Your task to perform on an android device: turn on notifications settings in the gmail app Image 0: 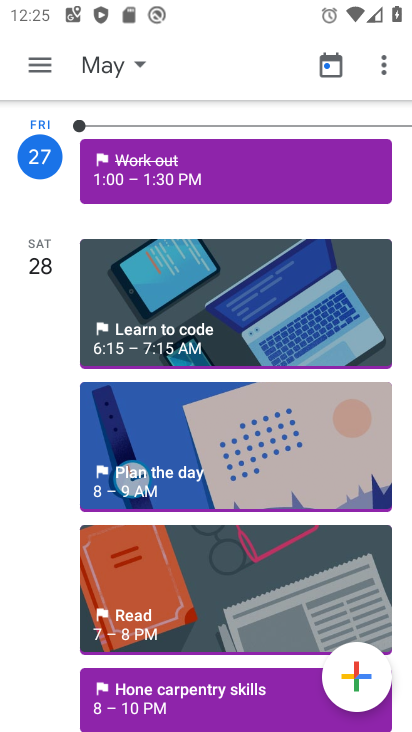
Step 0: press home button
Your task to perform on an android device: turn on notifications settings in the gmail app Image 1: 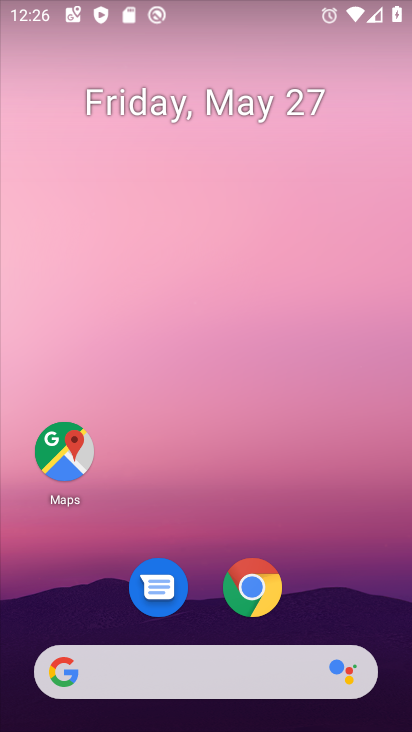
Step 1: drag from (240, 693) to (209, 180)
Your task to perform on an android device: turn on notifications settings in the gmail app Image 2: 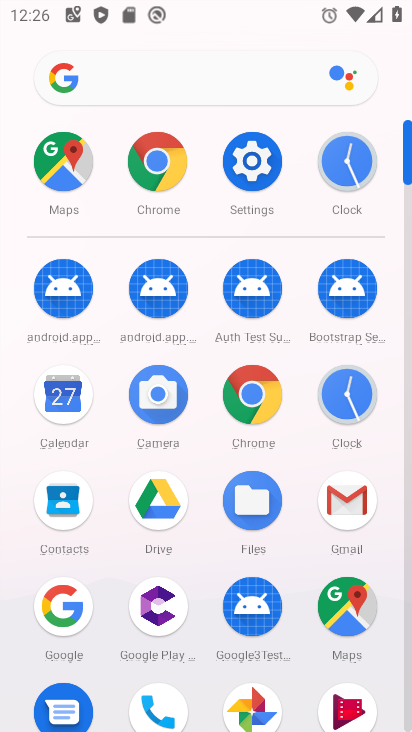
Step 2: click (341, 505)
Your task to perform on an android device: turn on notifications settings in the gmail app Image 3: 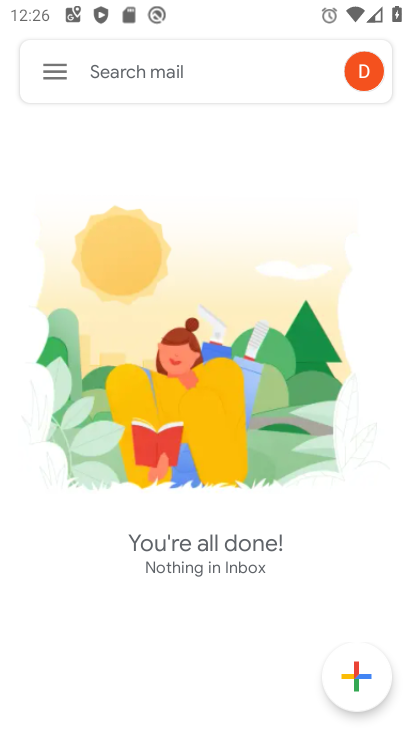
Step 3: click (51, 77)
Your task to perform on an android device: turn on notifications settings in the gmail app Image 4: 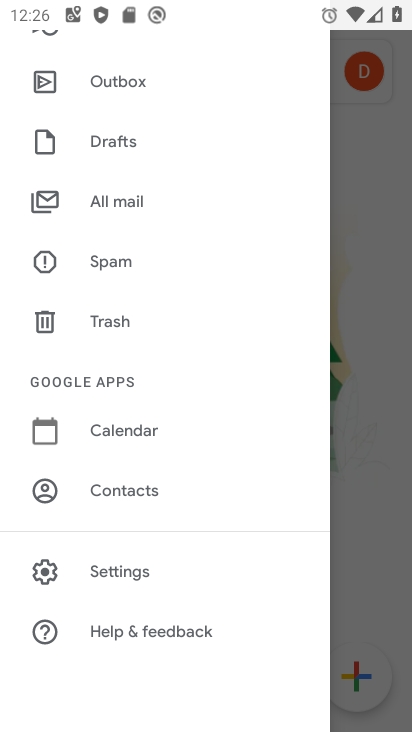
Step 4: click (108, 577)
Your task to perform on an android device: turn on notifications settings in the gmail app Image 5: 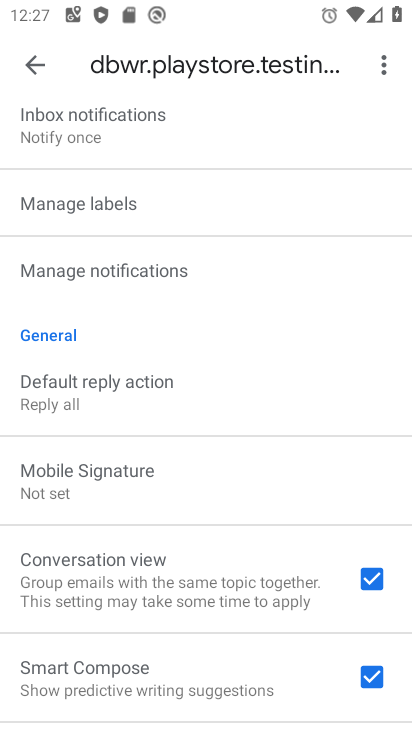
Step 5: click (114, 133)
Your task to perform on an android device: turn on notifications settings in the gmail app Image 6: 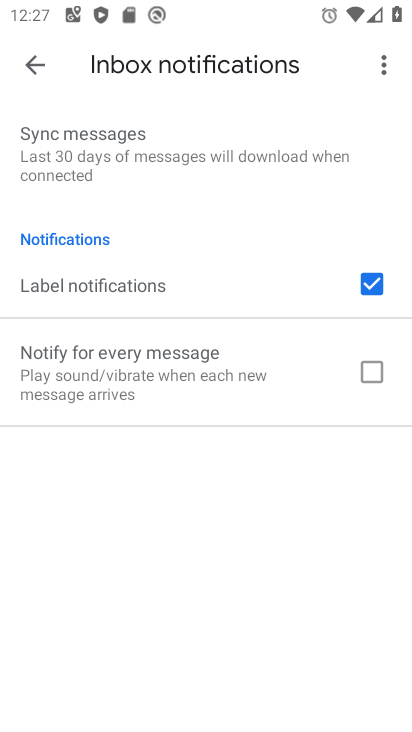
Step 6: task complete